Your task to perform on an android device: set an alarm Image 0: 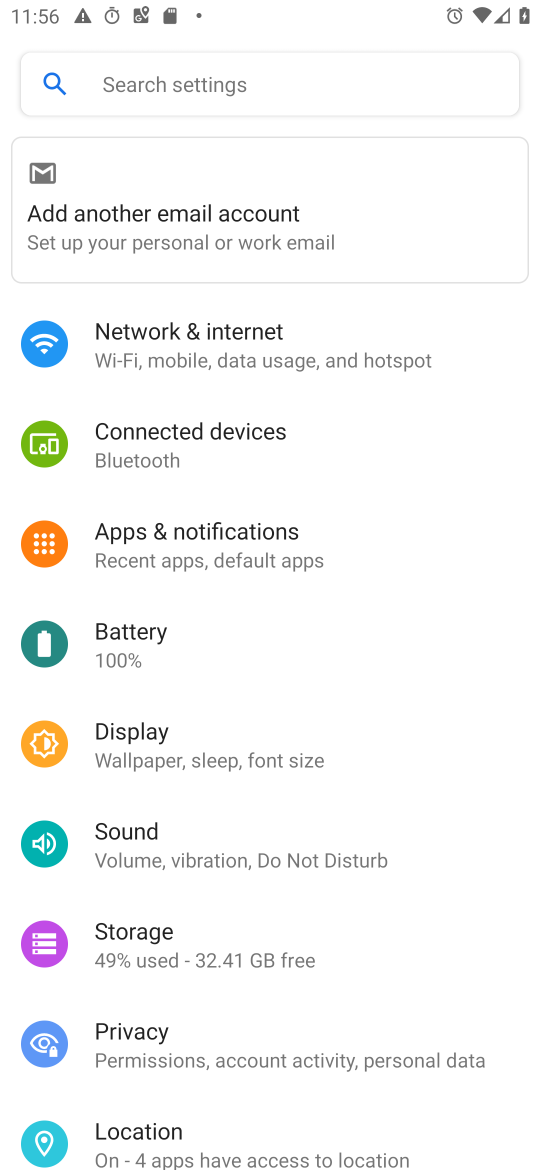
Step 0: press home button
Your task to perform on an android device: set an alarm Image 1: 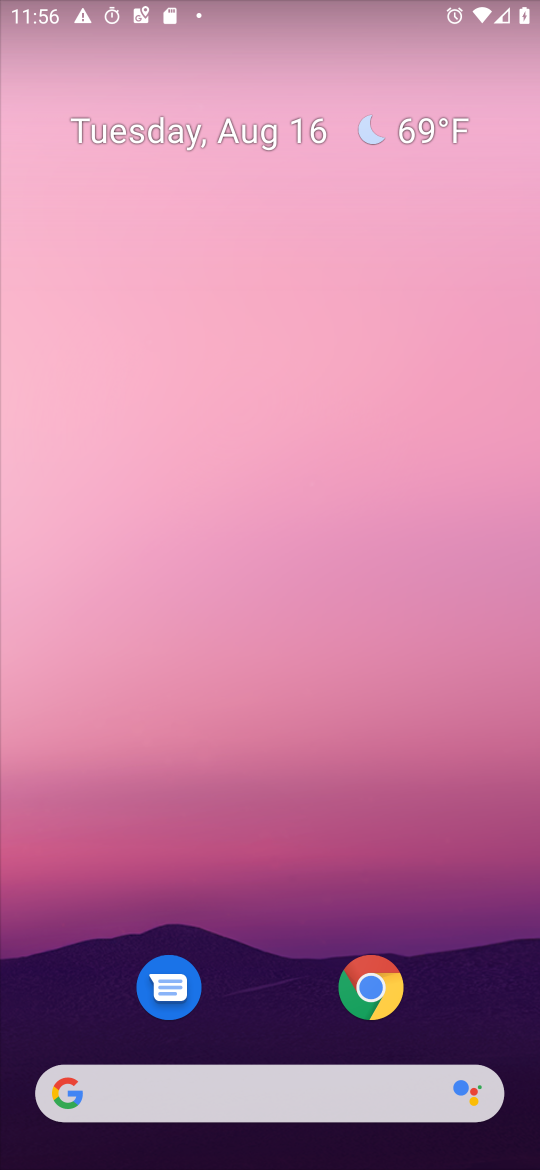
Step 1: drag from (53, 1123) to (263, 624)
Your task to perform on an android device: set an alarm Image 2: 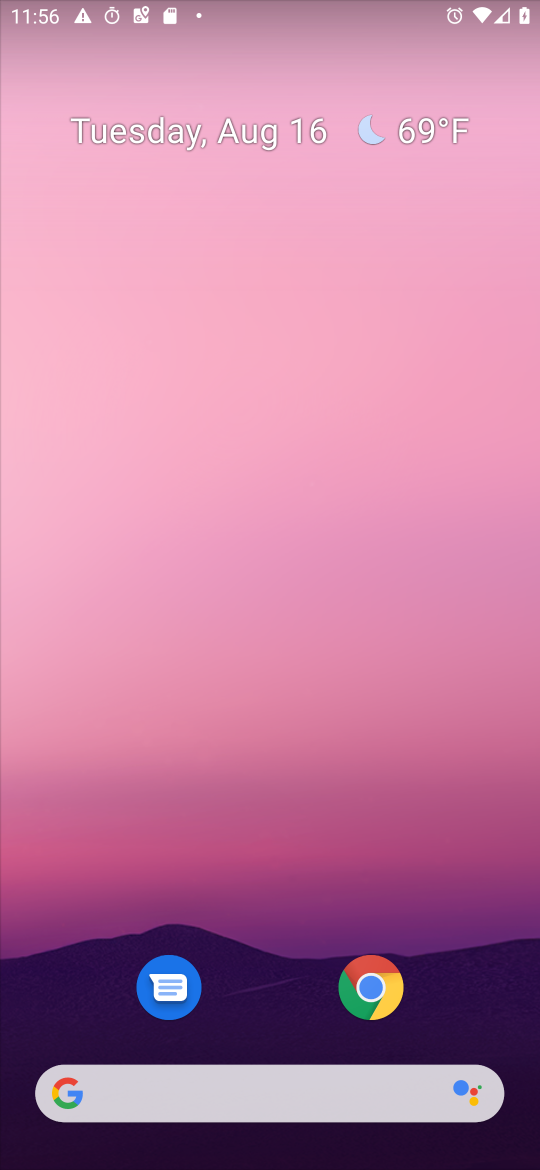
Step 2: drag from (19, 1115) to (171, 418)
Your task to perform on an android device: set an alarm Image 3: 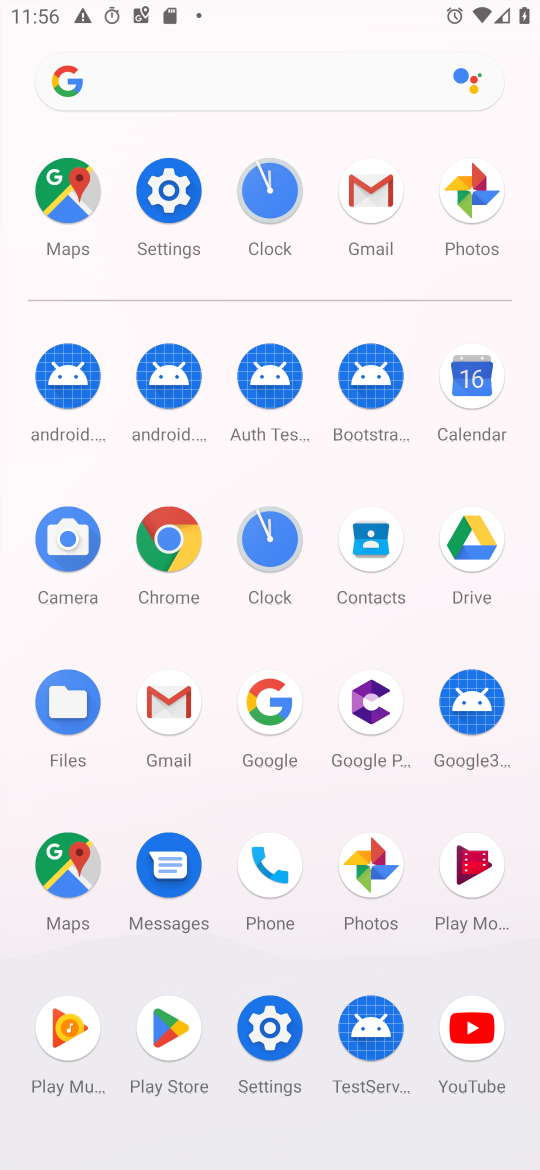
Step 3: click (264, 544)
Your task to perform on an android device: set an alarm Image 4: 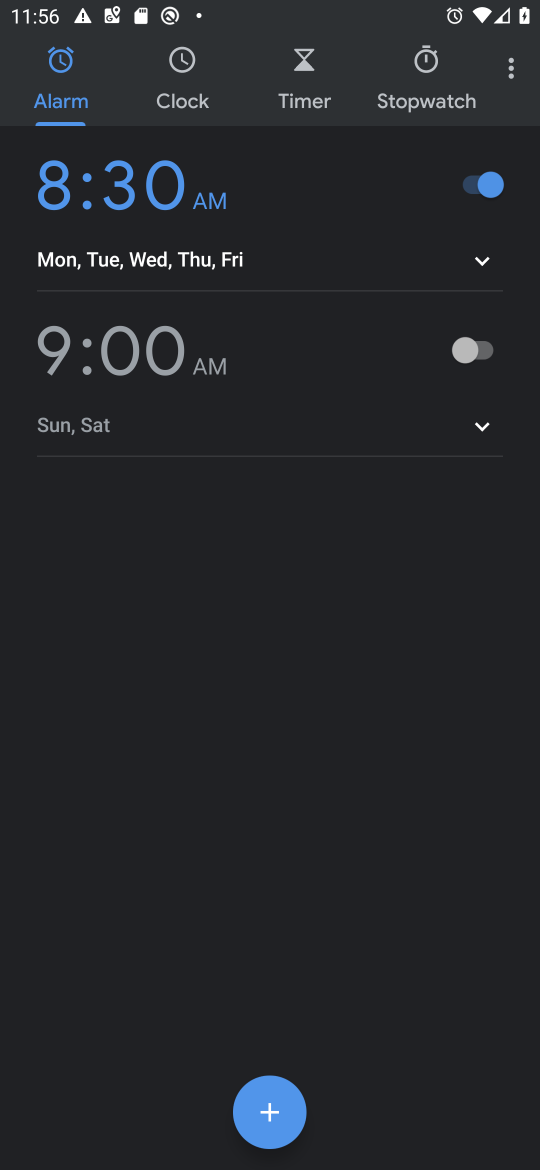
Step 4: task complete